Your task to perform on an android device: snooze an email in the gmail app Image 0: 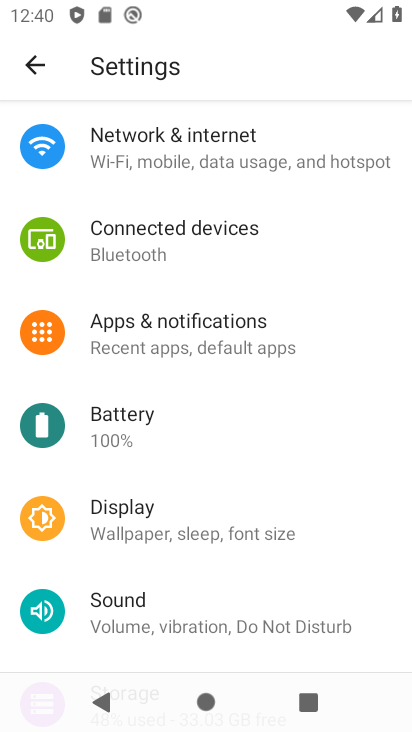
Step 0: press home button
Your task to perform on an android device: snooze an email in the gmail app Image 1: 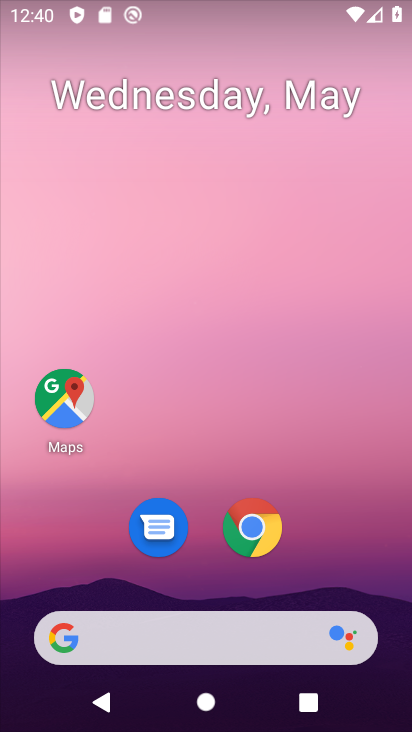
Step 1: drag from (214, 514) to (202, 64)
Your task to perform on an android device: snooze an email in the gmail app Image 2: 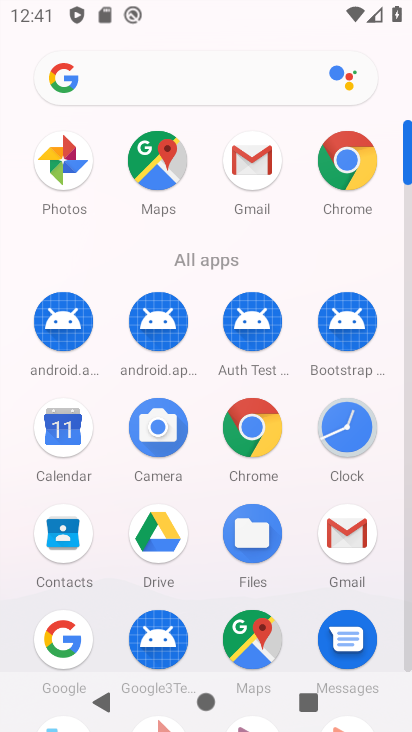
Step 2: click (350, 542)
Your task to perform on an android device: snooze an email in the gmail app Image 3: 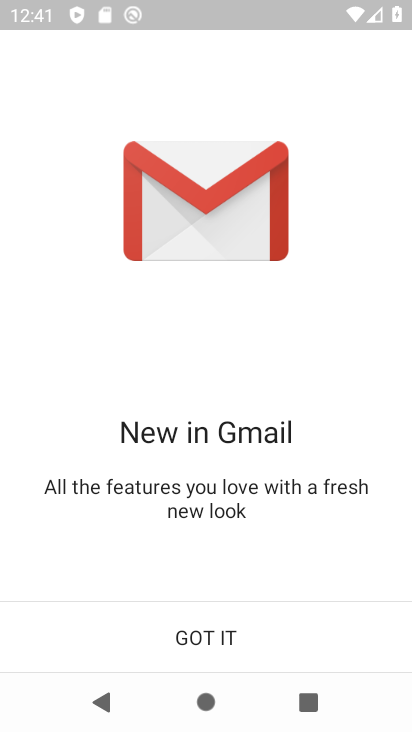
Step 3: click (231, 631)
Your task to perform on an android device: snooze an email in the gmail app Image 4: 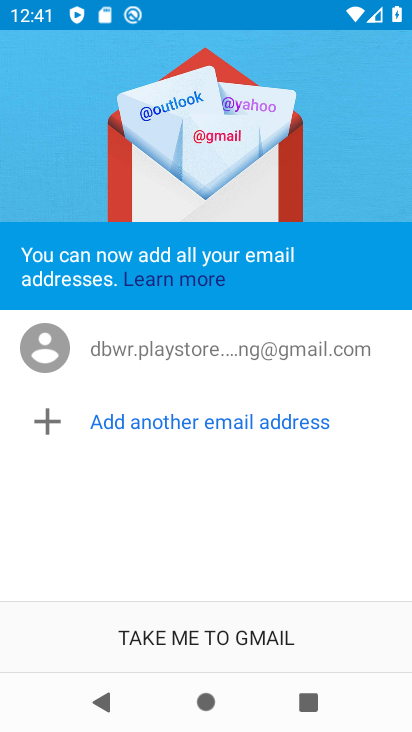
Step 4: click (231, 631)
Your task to perform on an android device: snooze an email in the gmail app Image 5: 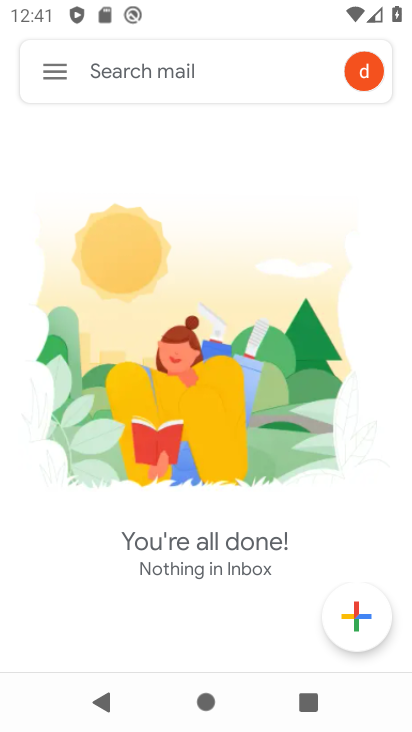
Step 5: task complete